Your task to perform on an android device: open app "Firefox Browser" (install if not already installed) Image 0: 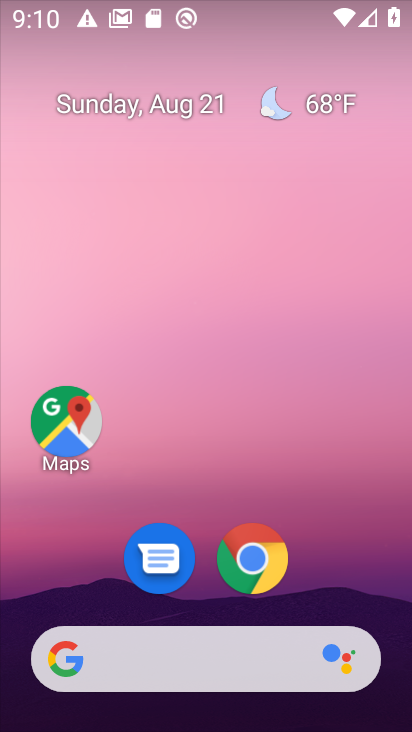
Step 0: drag from (236, 673) to (242, 163)
Your task to perform on an android device: open app "Firefox Browser" (install if not already installed) Image 1: 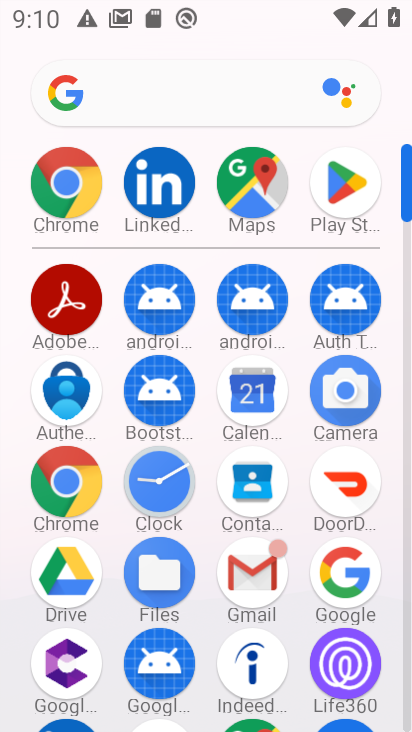
Step 1: click (306, 684)
Your task to perform on an android device: open app "Firefox Browser" (install if not already installed) Image 2: 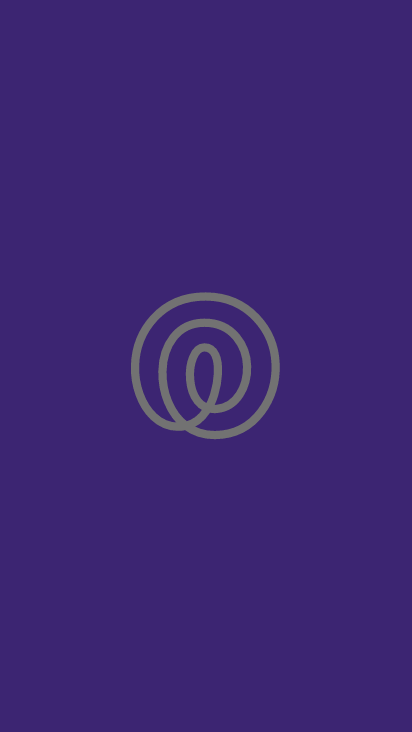
Step 2: click (307, 670)
Your task to perform on an android device: open app "Firefox Browser" (install if not already installed) Image 3: 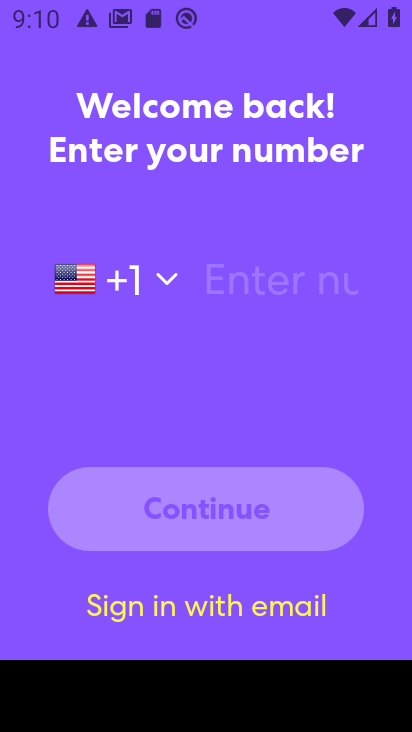
Step 3: click (361, 670)
Your task to perform on an android device: open app "Firefox Browser" (install if not already installed) Image 4: 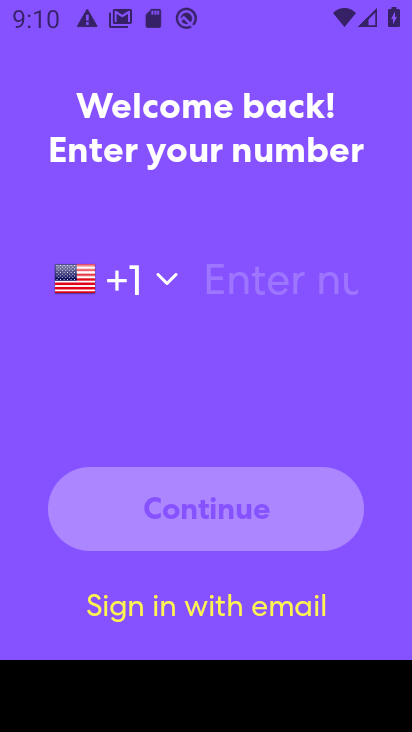
Step 4: press home button
Your task to perform on an android device: open app "Firefox Browser" (install if not already installed) Image 5: 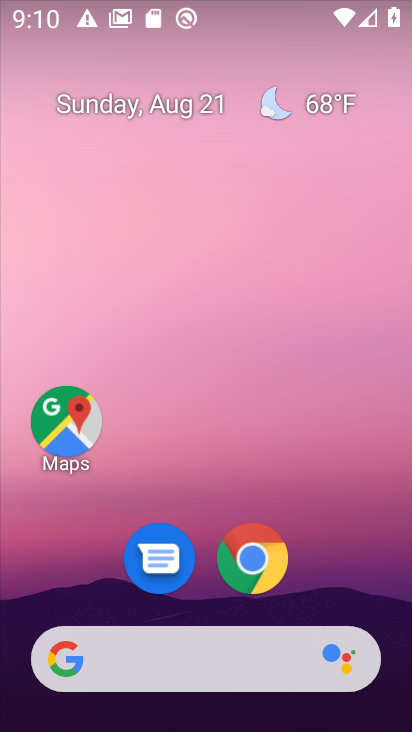
Step 5: drag from (201, 678) to (233, 74)
Your task to perform on an android device: open app "Firefox Browser" (install if not already installed) Image 6: 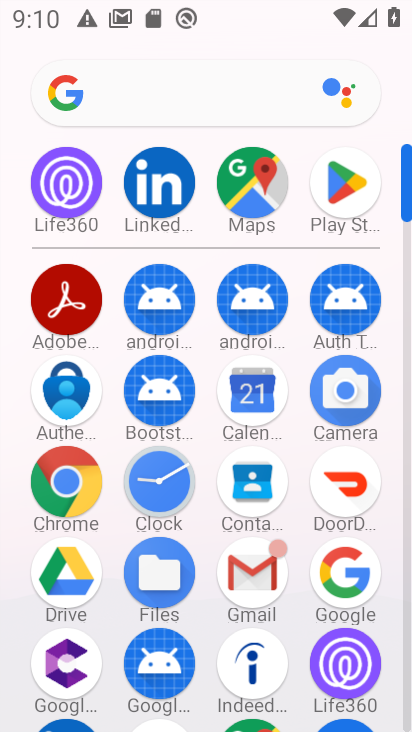
Step 6: click (323, 197)
Your task to perform on an android device: open app "Firefox Browser" (install if not already installed) Image 7: 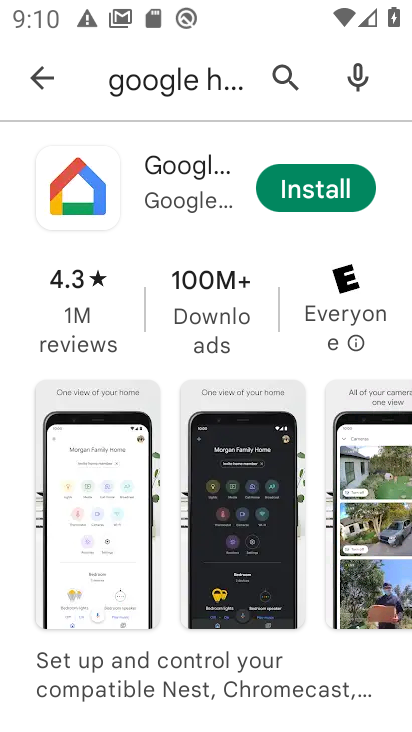
Step 7: click (280, 98)
Your task to perform on an android device: open app "Firefox Browser" (install if not already installed) Image 8: 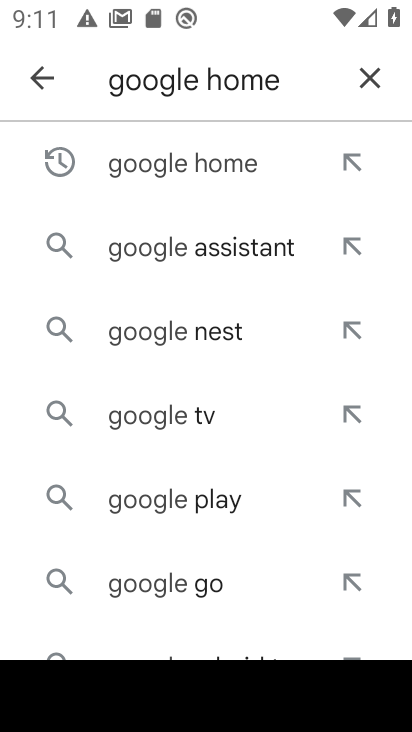
Step 8: click (389, 81)
Your task to perform on an android device: open app "Firefox Browser" (install if not already installed) Image 9: 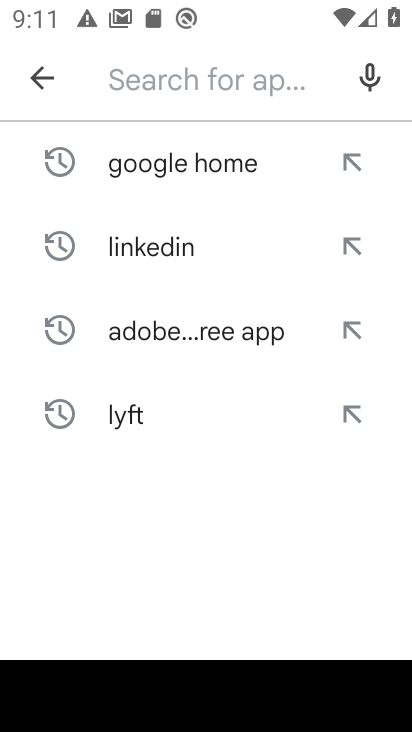
Step 9: type "Firefox Browser"
Your task to perform on an android device: open app "Firefox Browser" (install if not already installed) Image 10: 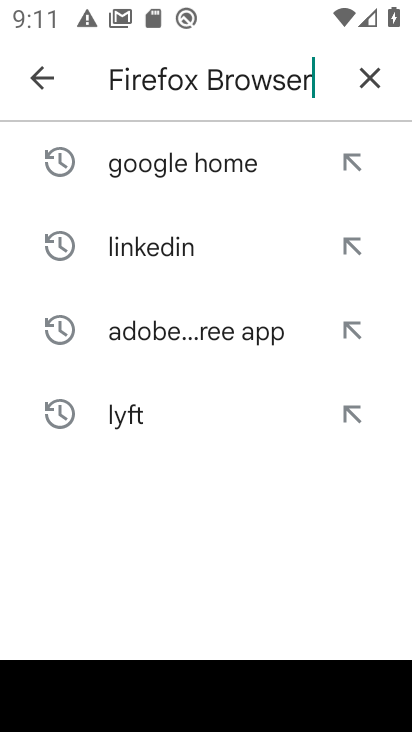
Step 10: press enter
Your task to perform on an android device: open app "Firefox Browser" (install if not already installed) Image 11: 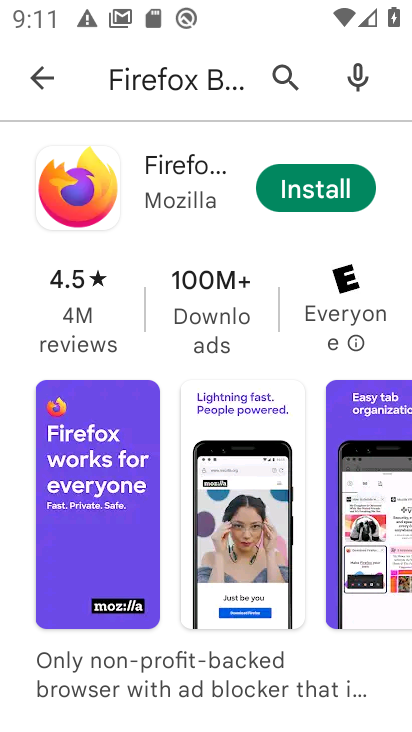
Step 11: click (296, 193)
Your task to perform on an android device: open app "Firefox Browser" (install if not already installed) Image 12: 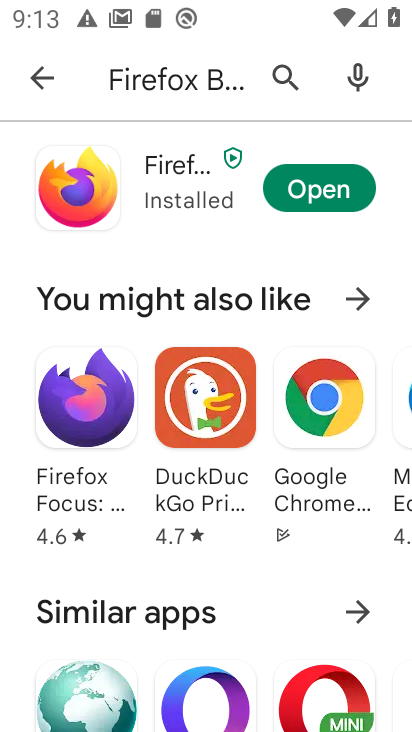
Step 12: click (281, 182)
Your task to perform on an android device: open app "Firefox Browser" (install if not already installed) Image 13: 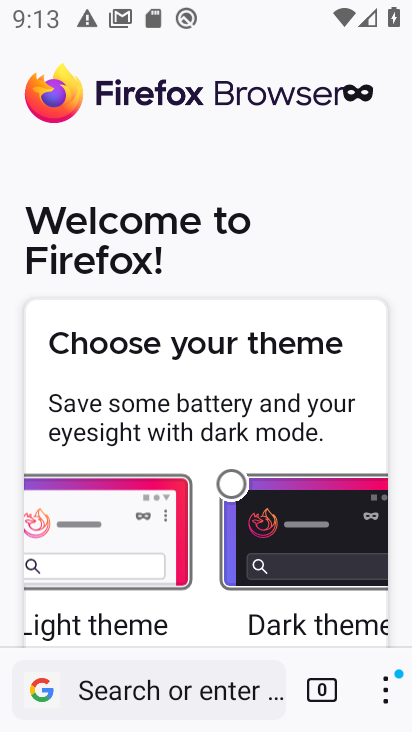
Step 13: task complete